Your task to perform on an android device: set default search engine in the chrome app Image 0: 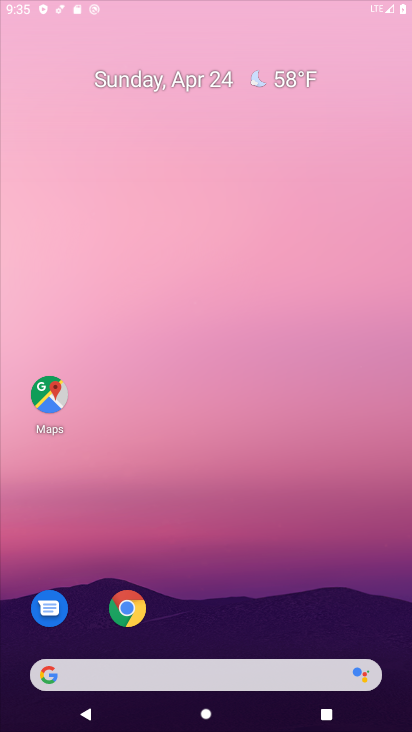
Step 0: drag from (315, 254) to (258, 9)
Your task to perform on an android device: set default search engine in the chrome app Image 1: 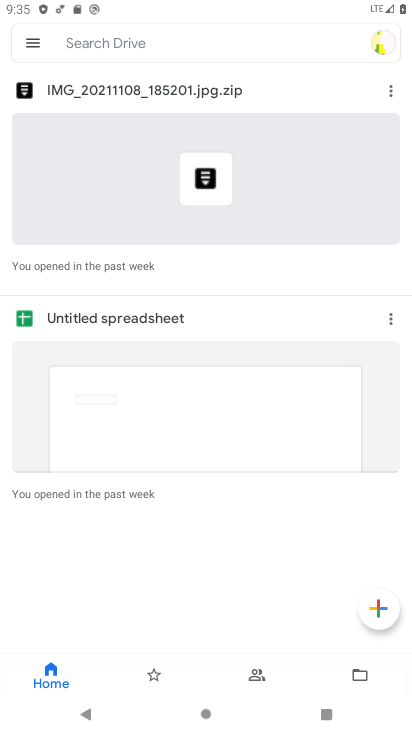
Step 1: press home button
Your task to perform on an android device: set default search engine in the chrome app Image 2: 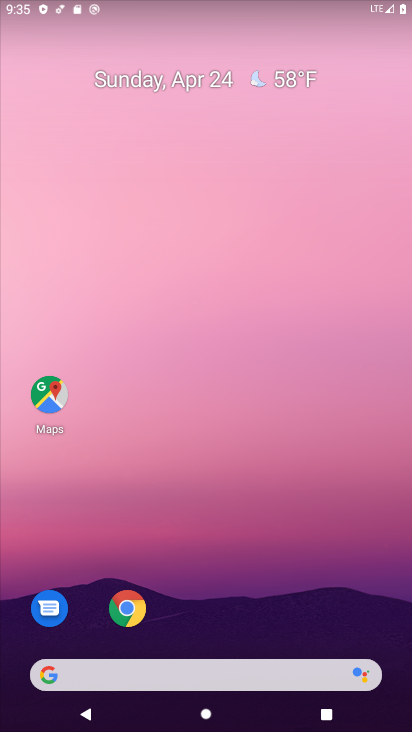
Step 2: drag from (249, 390) to (167, 8)
Your task to perform on an android device: set default search engine in the chrome app Image 3: 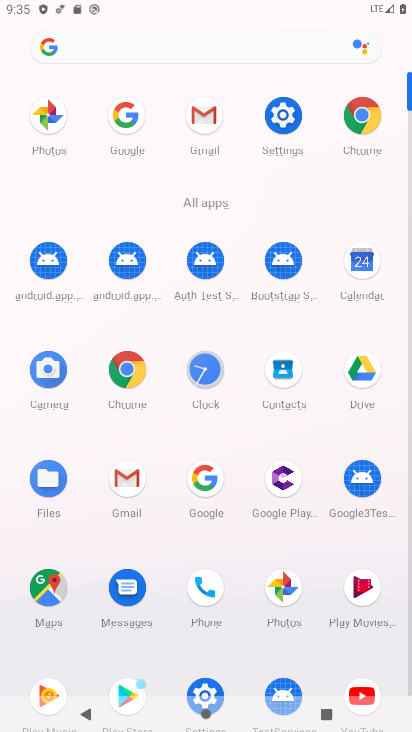
Step 3: click (360, 127)
Your task to perform on an android device: set default search engine in the chrome app Image 4: 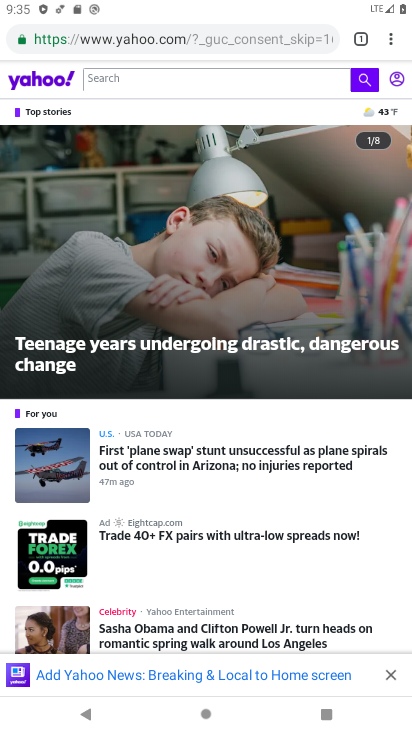
Step 4: drag from (397, 41) to (282, 477)
Your task to perform on an android device: set default search engine in the chrome app Image 5: 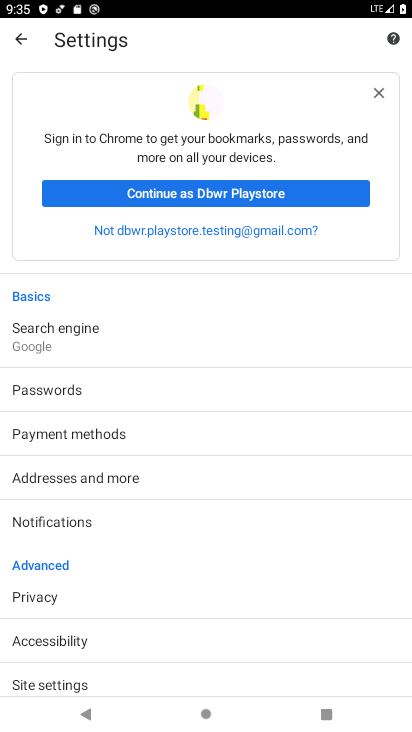
Step 5: drag from (219, 644) to (126, 257)
Your task to perform on an android device: set default search engine in the chrome app Image 6: 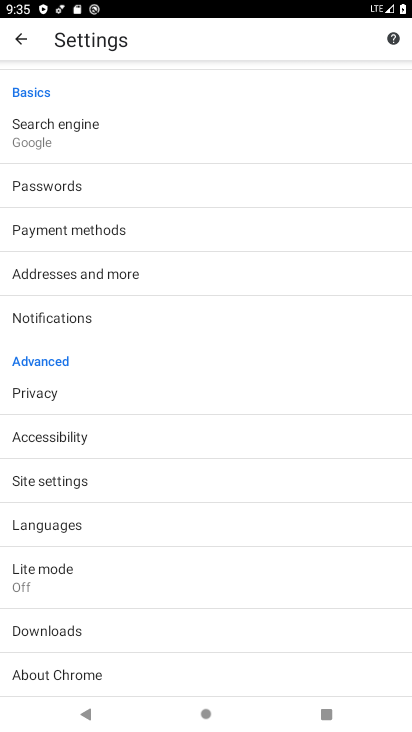
Step 6: drag from (133, 640) to (128, 257)
Your task to perform on an android device: set default search engine in the chrome app Image 7: 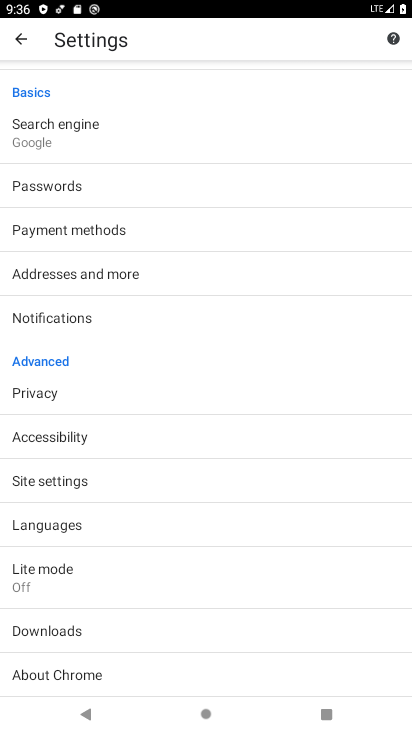
Step 7: drag from (103, 598) to (61, 262)
Your task to perform on an android device: set default search engine in the chrome app Image 8: 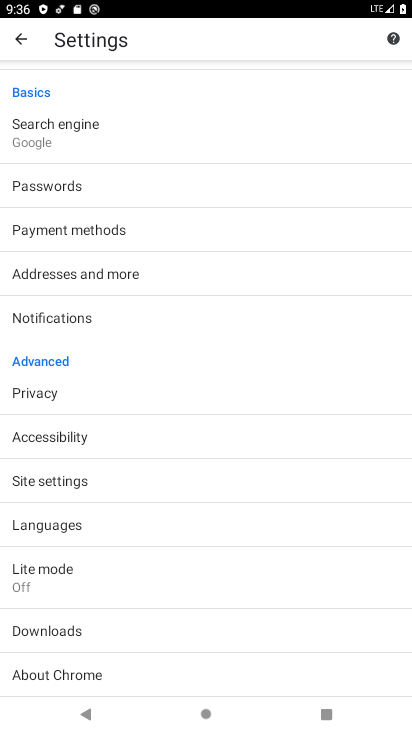
Step 8: drag from (71, 650) to (162, 317)
Your task to perform on an android device: set default search engine in the chrome app Image 9: 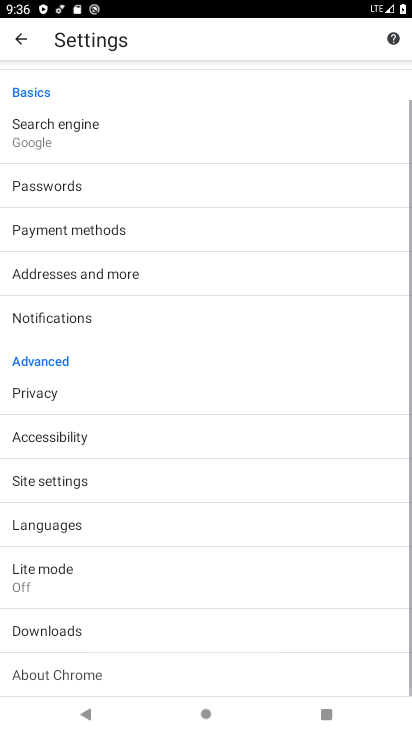
Step 9: drag from (246, 227) to (187, 578)
Your task to perform on an android device: set default search engine in the chrome app Image 10: 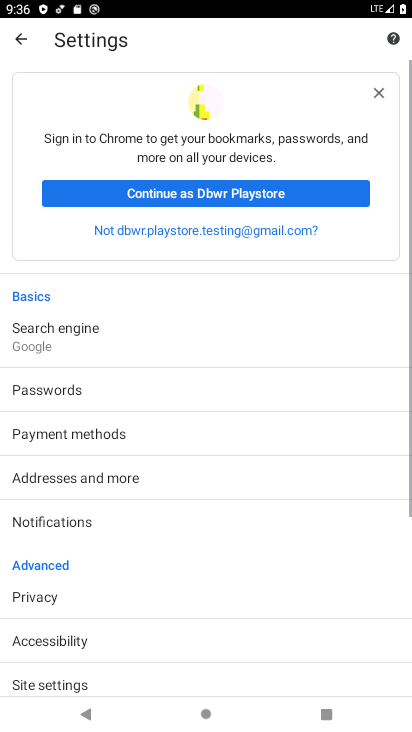
Step 10: click (44, 331)
Your task to perform on an android device: set default search engine in the chrome app Image 11: 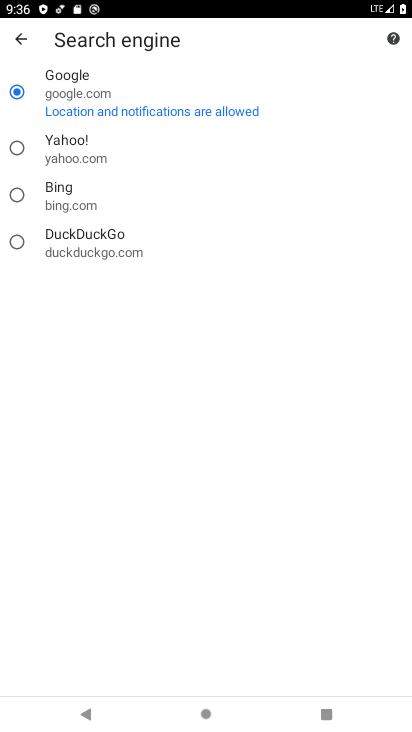
Step 11: task complete